Your task to perform on an android device: Search for alienware aurora on costco, select the first entry, add it to the cart, then select checkout. Image 0: 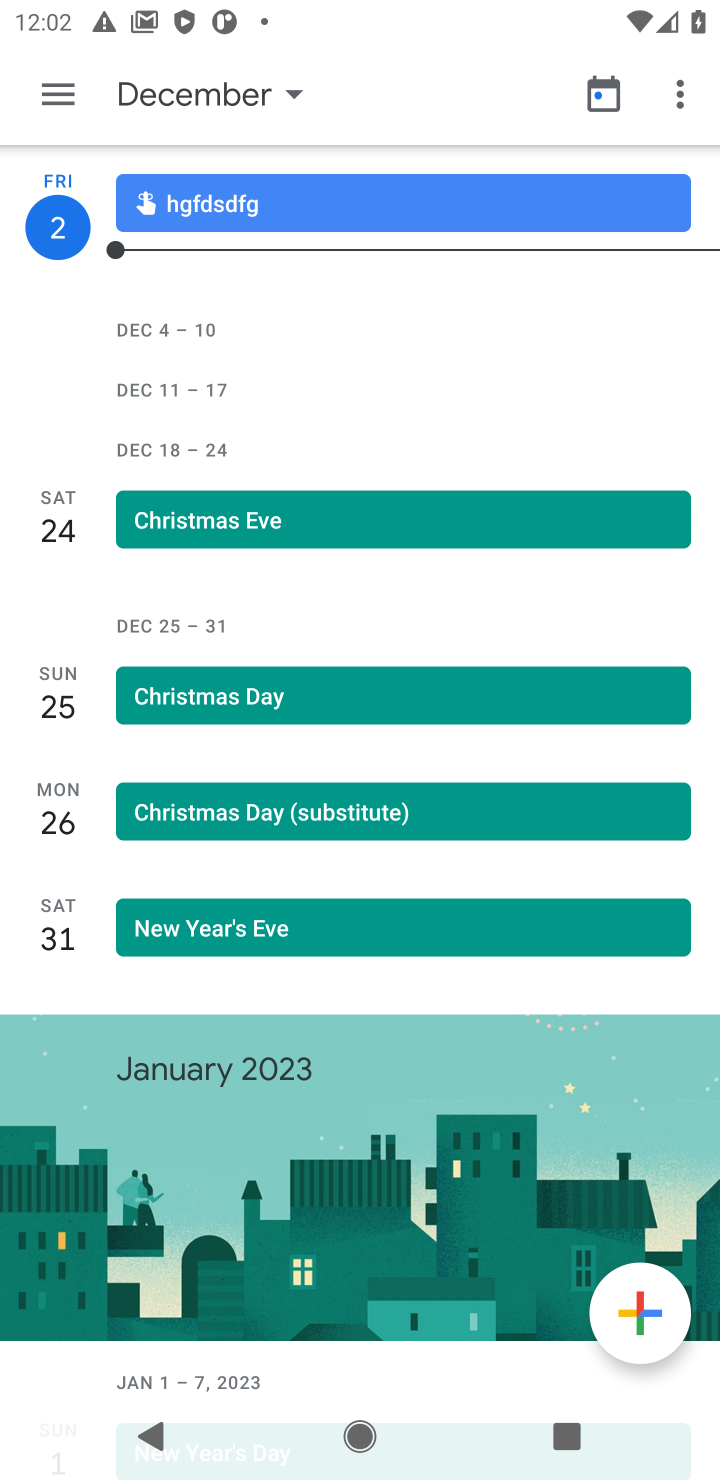
Step 0: press home button
Your task to perform on an android device: Search for alienware aurora on costco, select the first entry, add it to the cart, then select checkout. Image 1: 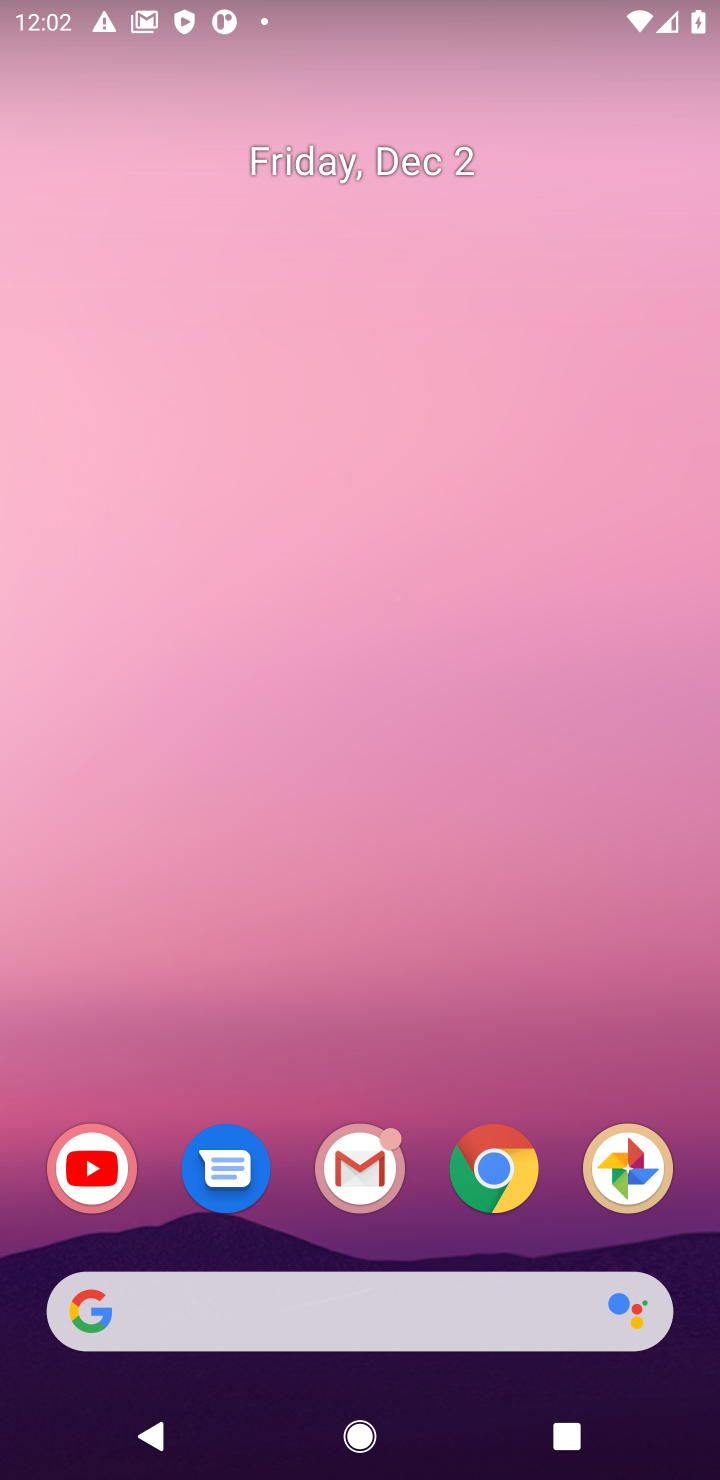
Step 1: click (518, 1179)
Your task to perform on an android device: Search for alienware aurora on costco, select the first entry, add it to the cart, then select checkout. Image 2: 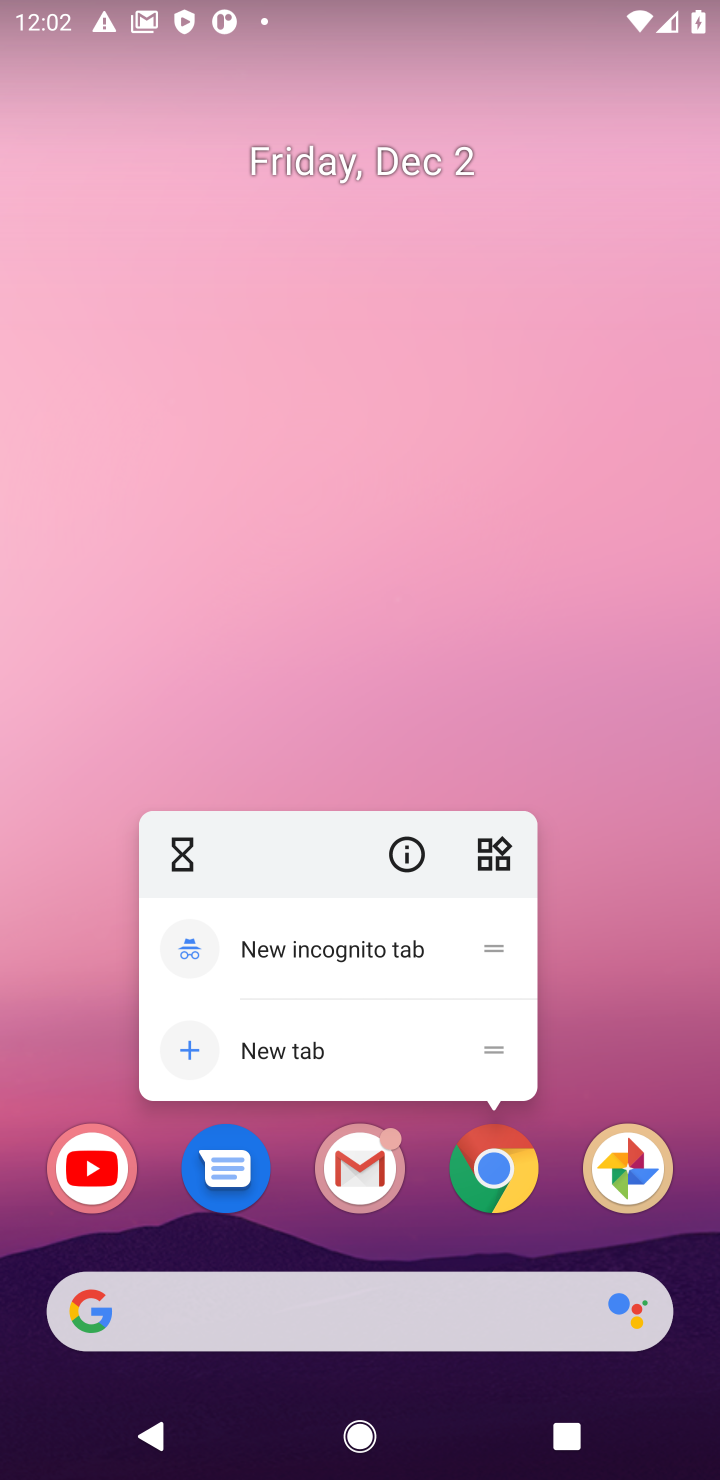
Step 2: click (500, 1172)
Your task to perform on an android device: Search for alienware aurora on costco, select the first entry, add it to the cart, then select checkout. Image 3: 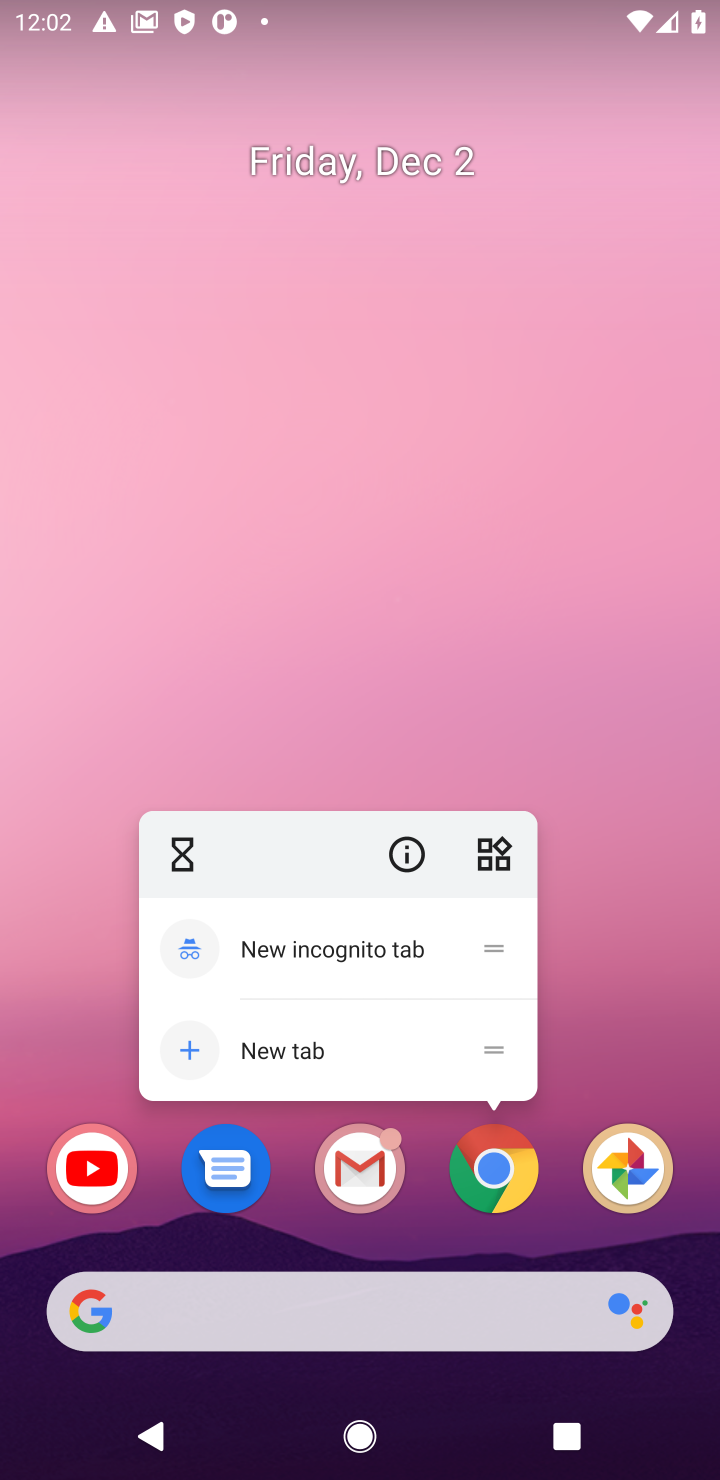
Step 3: click (500, 1172)
Your task to perform on an android device: Search for alienware aurora on costco, select the first entry, add it to the cart, then select checkout. Image 4: 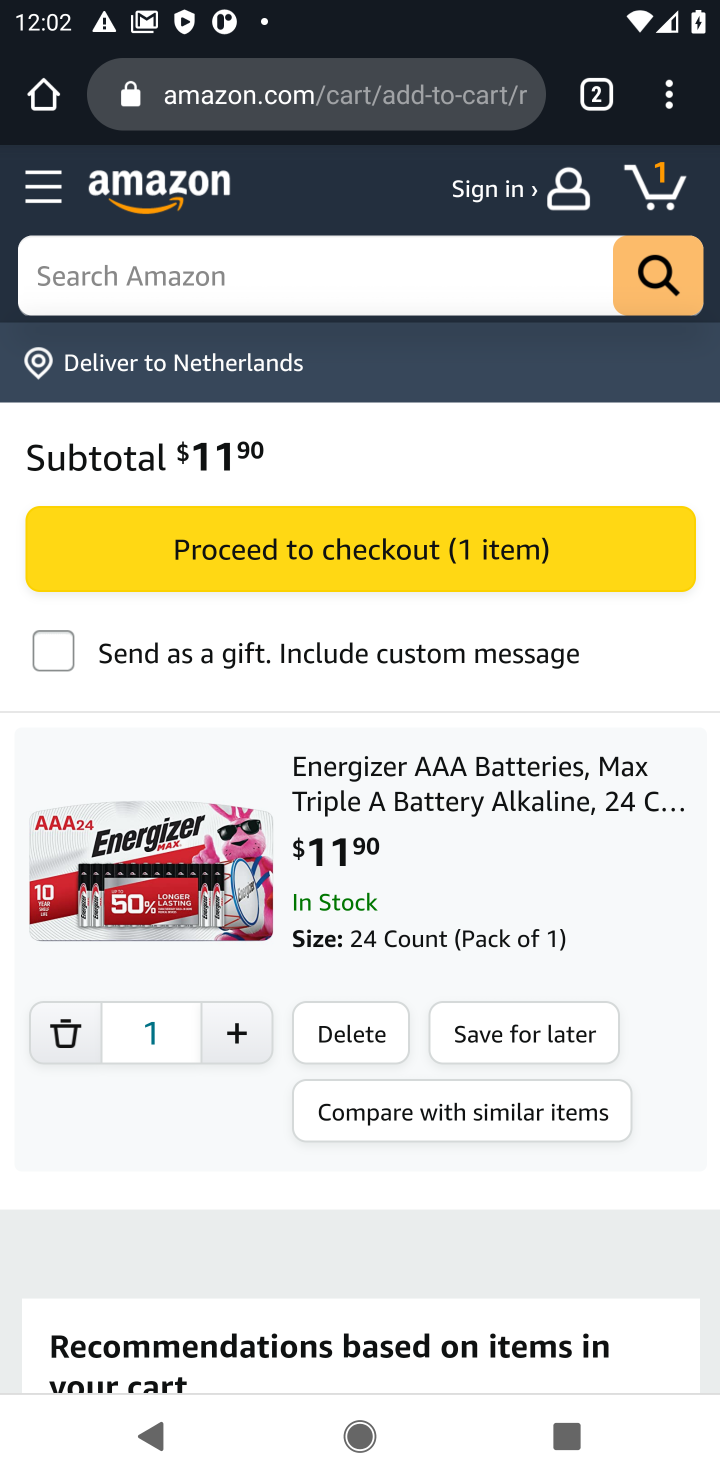
Step 4: click (311, 82)
Your task to perform on an android device: Search for alienware aurora on costco, select the first entry, add it to the cart, then select checkout. Image 5: 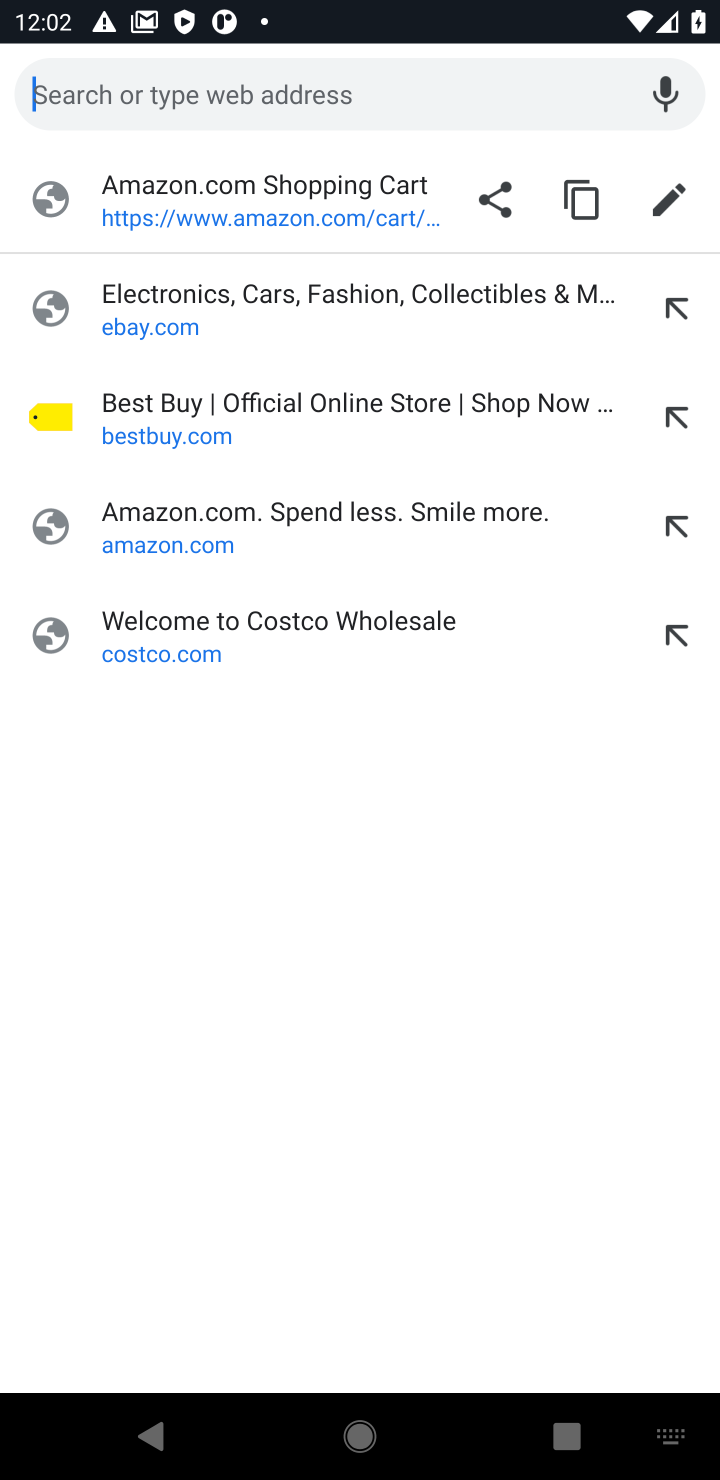
Step 5: click (167, 627)
Your task to perform on an android device: Search for alienware aurora on costco, select the first entry, add it to the cart, then select checkout. Image 6: 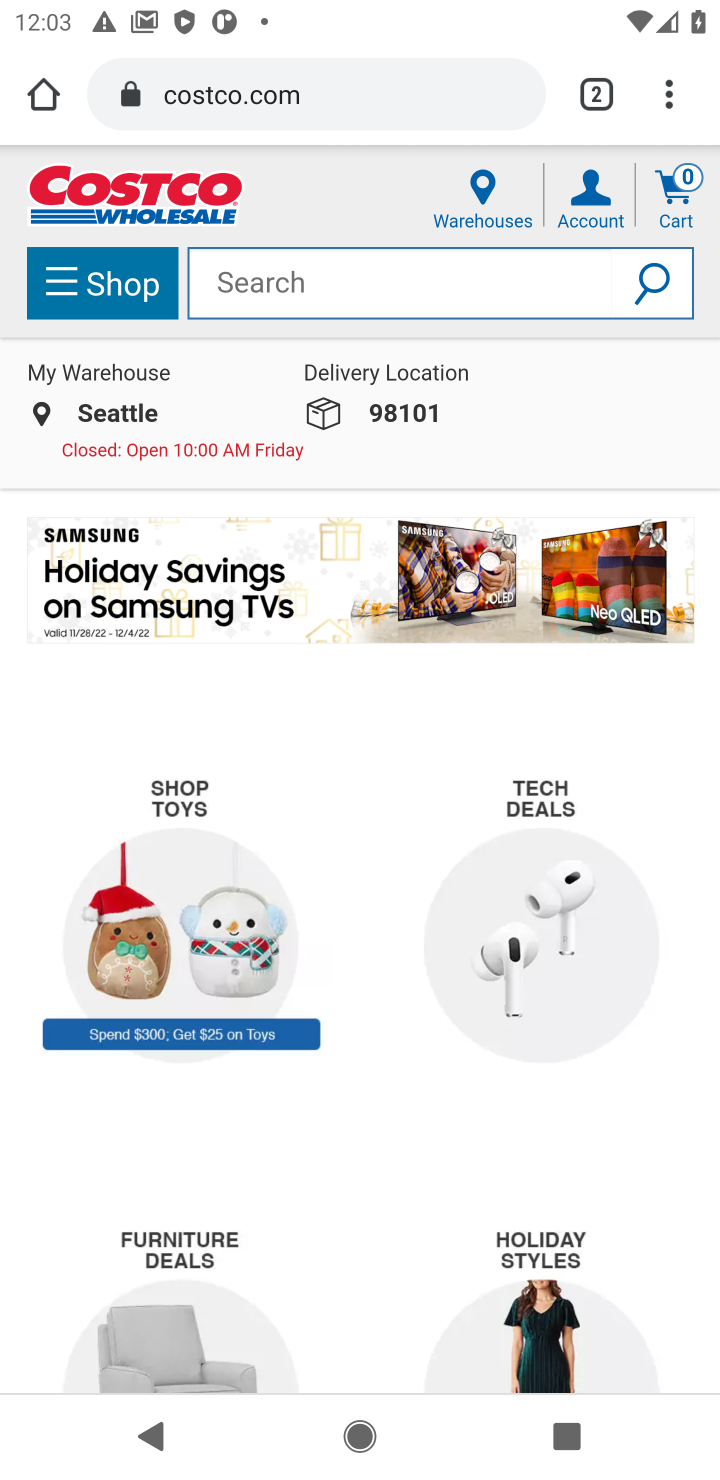
Step 6: click (305, 288)
Your task to perform on an android device: Search for alienware aurora on costco, select the first entry, add it to the cart, then select checkout. Image 7: 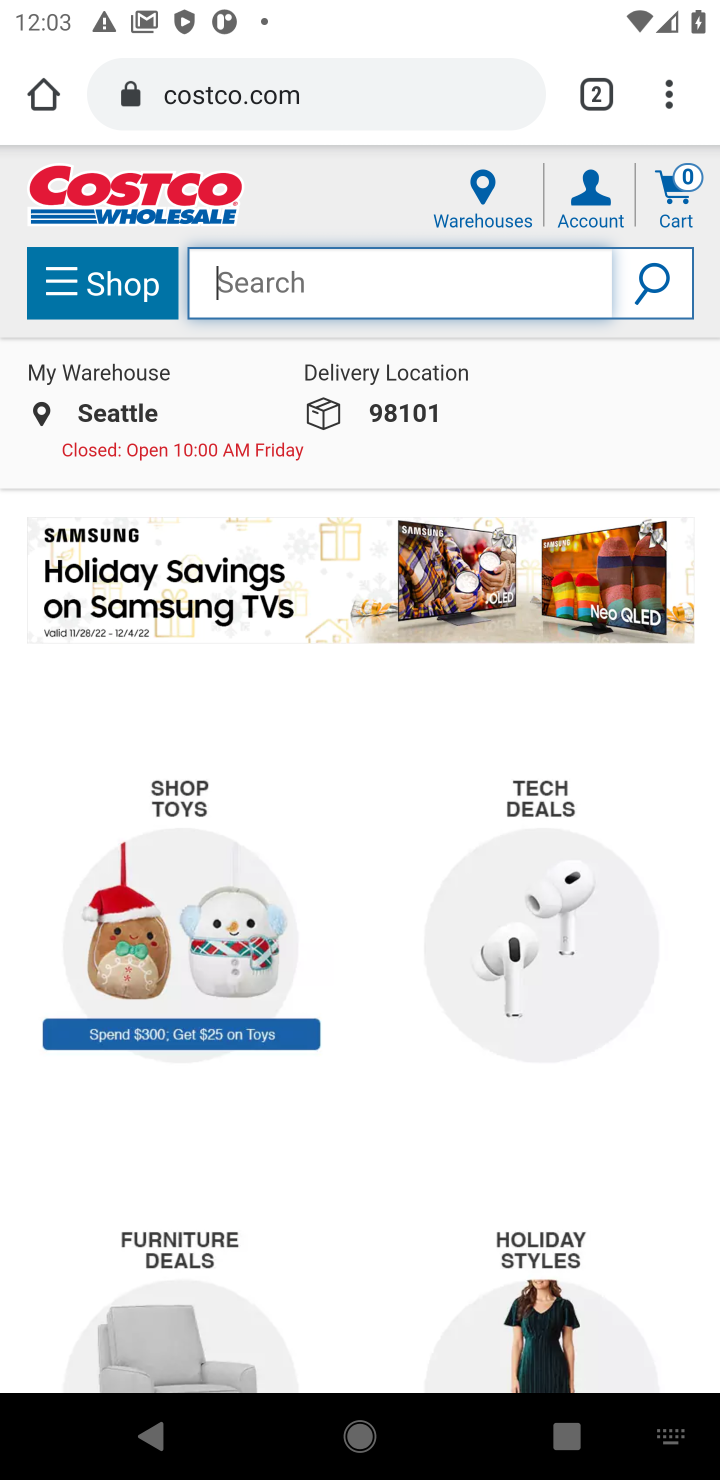
Step 7: type "alienware aurora"
Your task to perform on an android device: Search for alienware aurora on costco, select the first entry, add it to the cart, then select checkout. Image 8: 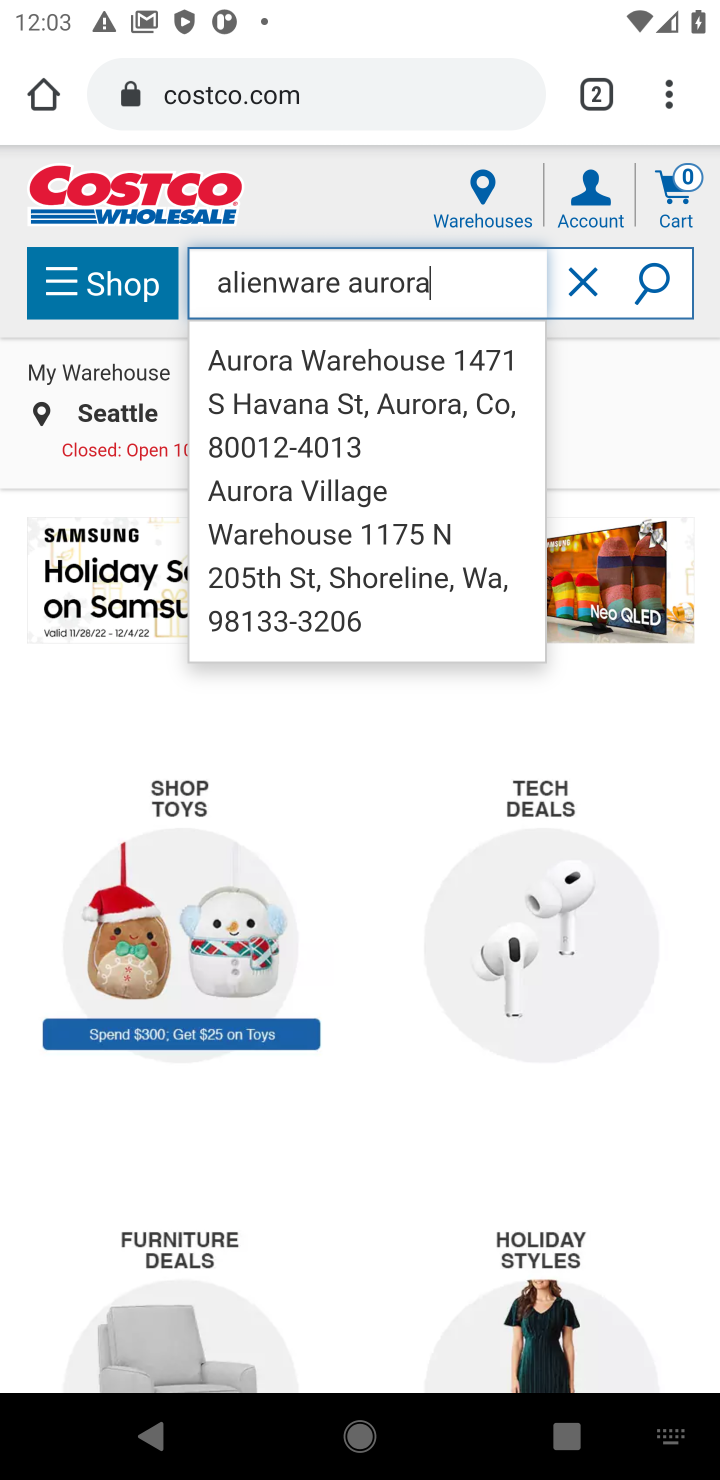
Step 8: click (656, 280)
Your task to perform on an android device: Search for alienware aurora on costco, select the first entry, add it to the cart, then select checkout. Image 9: 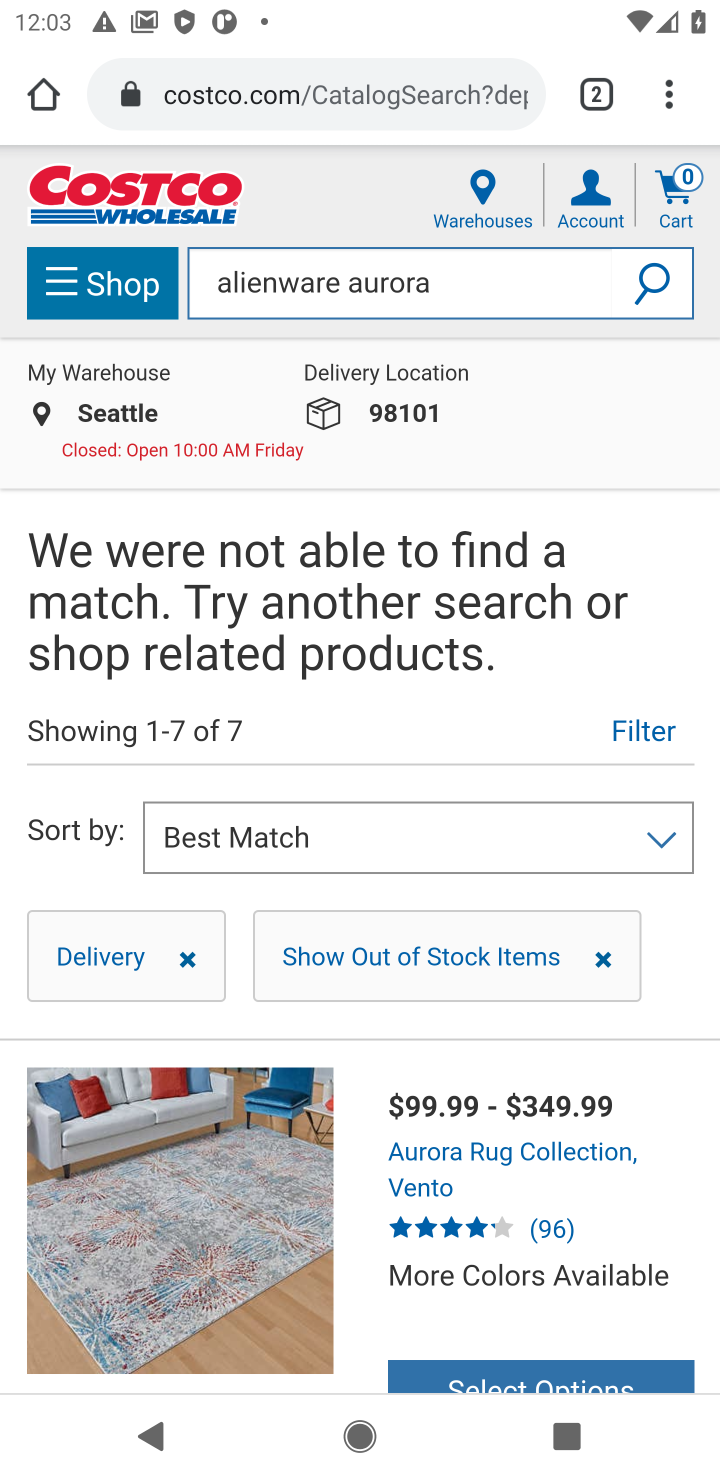
Step 9: task complete